Your task to perform on an android device: manage bookmarks in the chrome app Image 0: 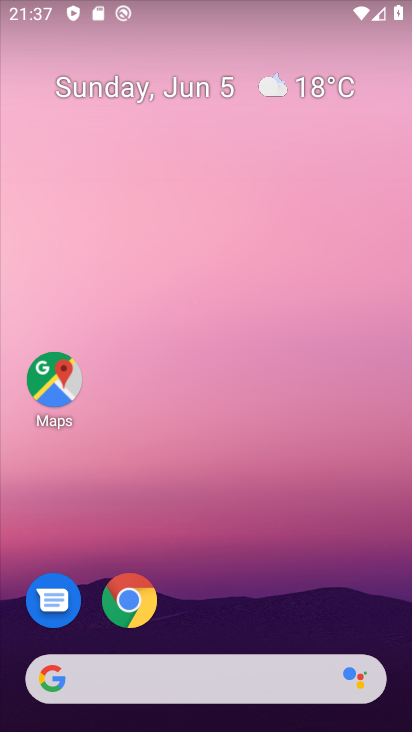
Step 0: click (129, 600)
Your task to perform on an android device: manage bookmarks in the chrome app Image 1: 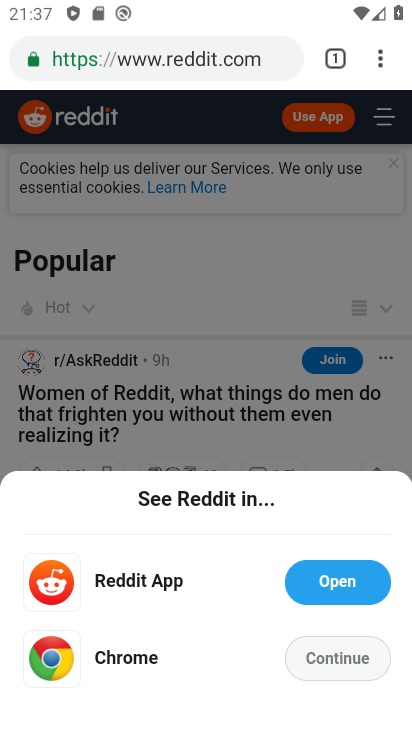
Step 1: drag from (385, 61) to (232, 231)
Your task to perform on an android device: manage bookmarks in the chrome app Image 2: 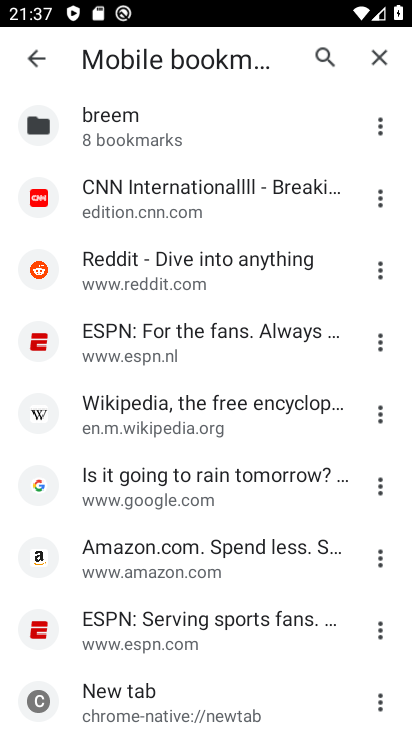
Step 2: click (377, 627)
Your task to perform on an android device: manage bookmarks in the chrome app Image 3: 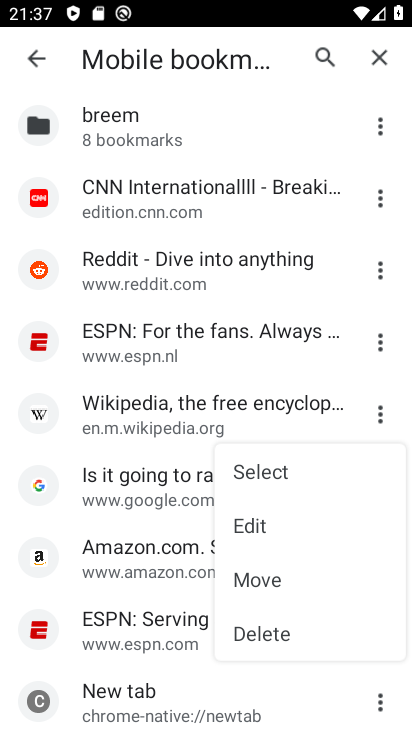
Step 3: click (295, 646)
Your task to perform on an android device: manage bookmarks in the chrome app Image 4: 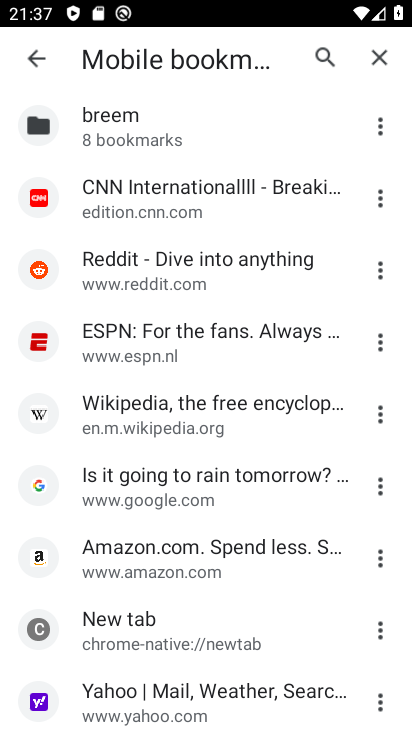
Step 4: task complete